Your task to perform on an android device: allow notifications from all sites in the chrome app Image 0: 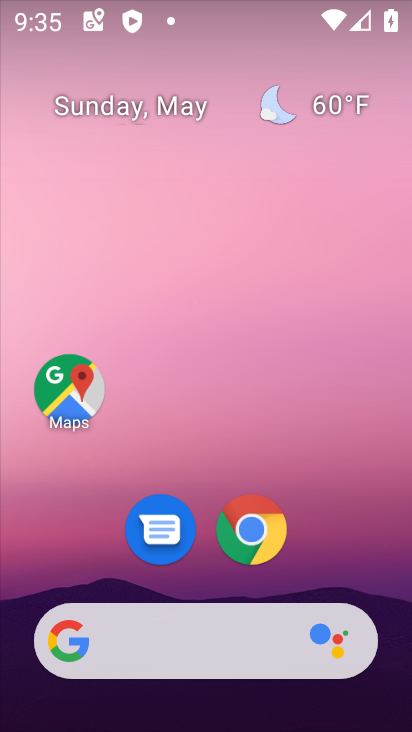
Step 0: drag from (383, 542) to (348, 280)
Your task to perform on an android device: allow notifications from all sites in the chrome app Image 1: 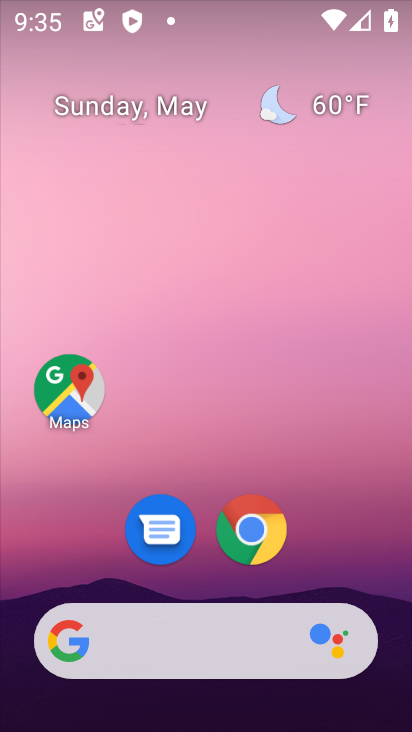
Step 1: drag from (328, 533) to (366, 100)
Your task to perform on an android device: allow notifications from all sites in the chrome app Image 2: 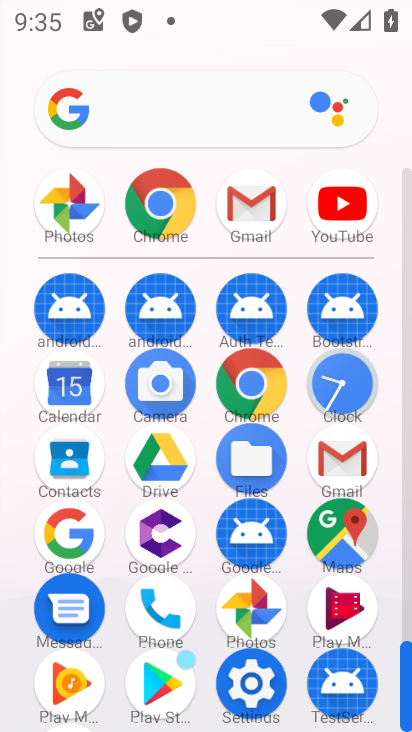
Step 2: click (270, 384)
Your task to perform on an android device: allow notifications from all sites in the chrome app Image 3: 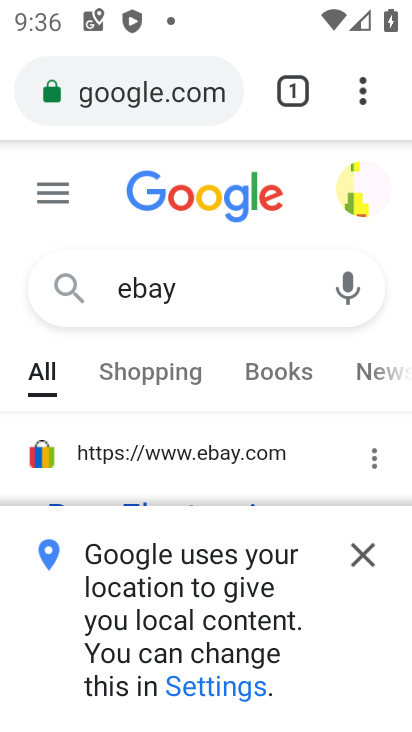
Step 3: click (361, 105)
Your task to perform on an android device: allow notifications from all sites in the chrome app Image 4: 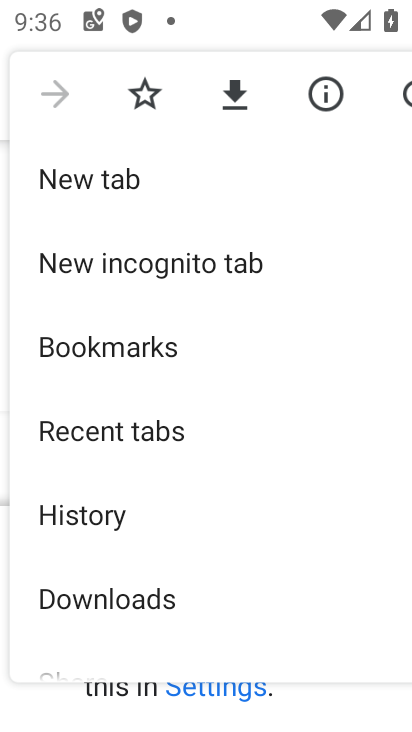
Step 4: drag from (360, 615) to (354, 436)
Your task to perform on an android device: allow notifications from all sites in the chrome app Image 5: 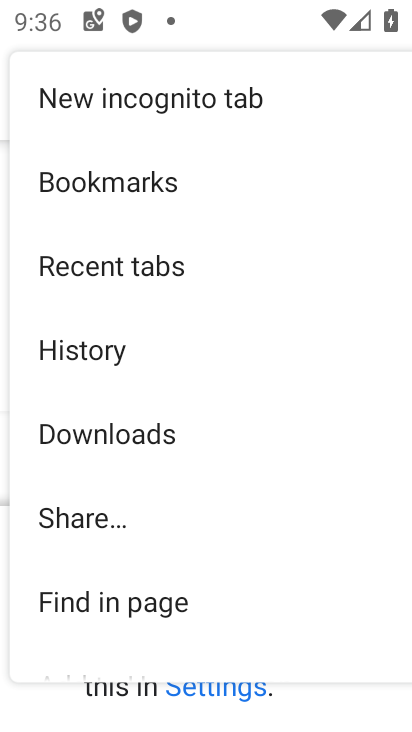
Step 5: drag from (325, 601) to (314, 428)
Your task to perform on an android device: allow notifications from all sites in the chrome app Image 6: 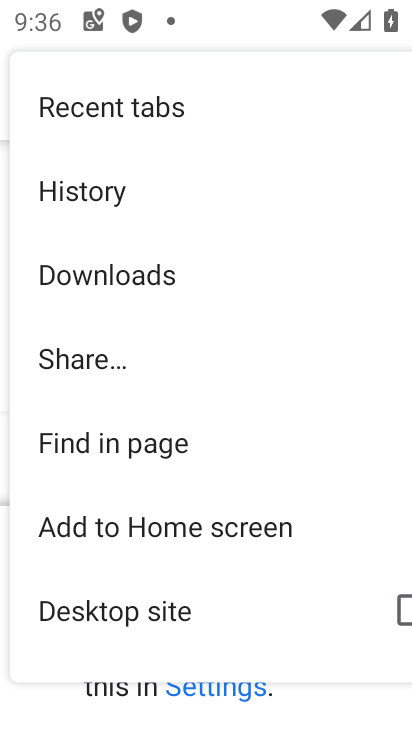
Step 6: drag from (323, 607) to (320, 431)
Your task to perform on an android device: allow notifications from all sites in the chrome app Image 7: 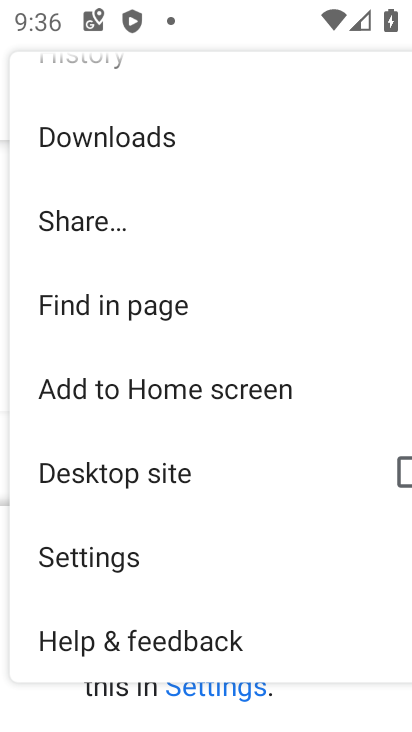
Step 7: click (106, 563)
Your task to perform on an android device: allow notifications from all sites in the chrome app Image 8: 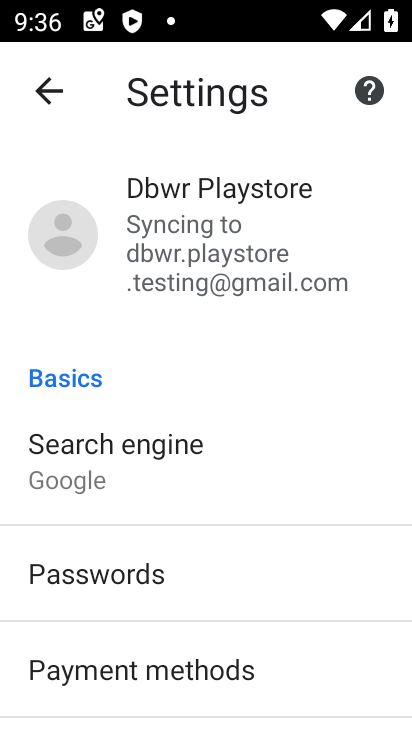
Step 8: drag from (375, 634) to (368, 386)
Your task to perform on an android device: allow notifications from all sites in the chrome app Image 9: 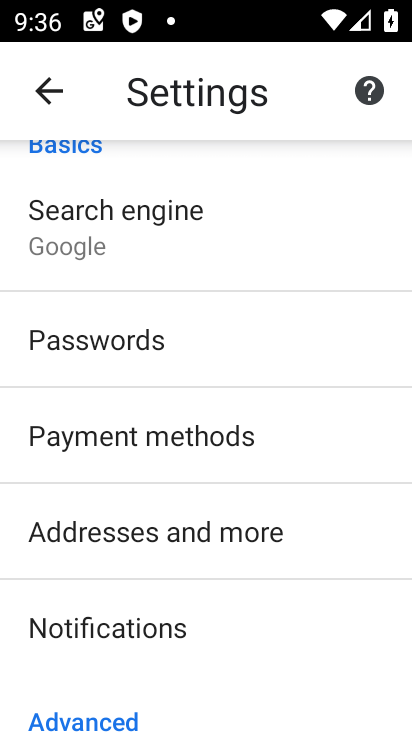
Step 9: drag from (353, 634) to (343, 441)
Your task to perform on an android device: allow notifications from all sites in the chrome app Image 10: 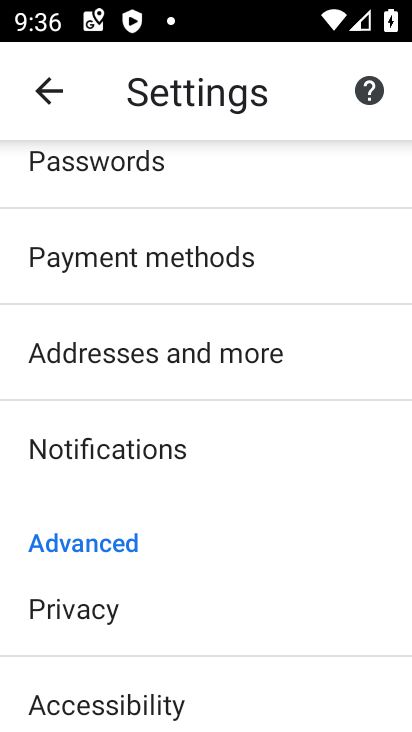
Step 10: drag from (347, 670) to (349, 478)
Your task to perform on an android device: allow notifications from all sites in the chrome app Image 11: 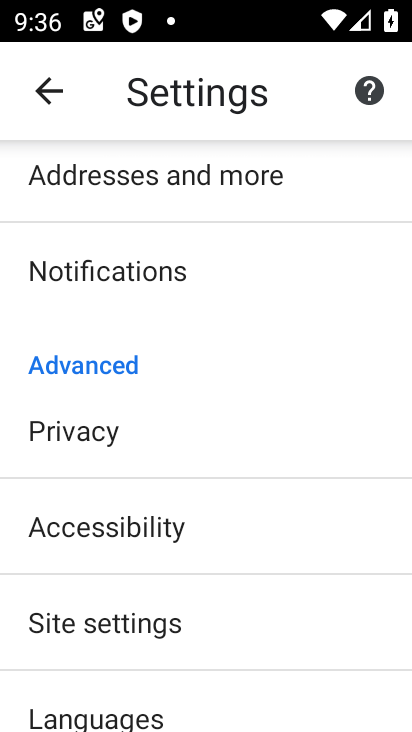
Step 11: click (308, 630)
Your task to perform on an android device: allow notifications from all sites in the chrome app Image 12: 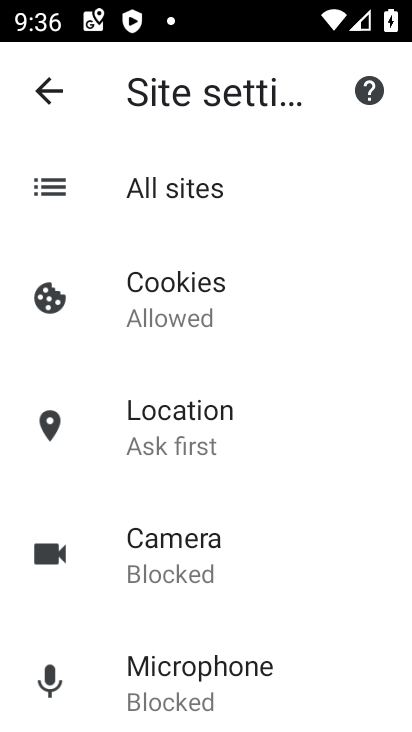
Step 12: drag from (324, 638) to (343, 444)
Your task to perform on an android device: allow notifications from all sites in the chrome app Image 13: 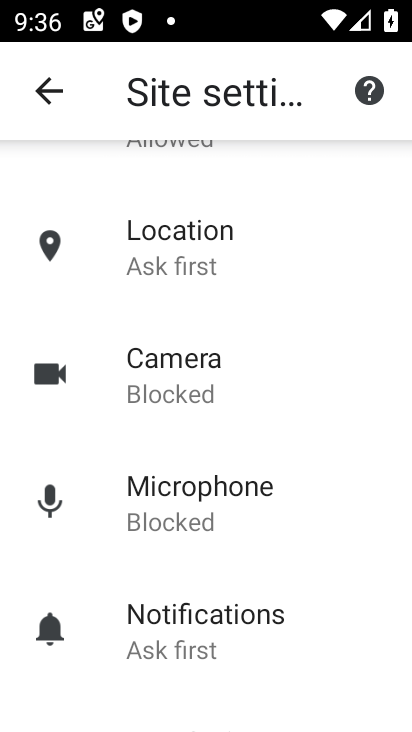
Step 13: drag from (353, 665) to (350, 509)
Your task to perform on an android device: allow notifications from all sites in the chrome app Image 14: 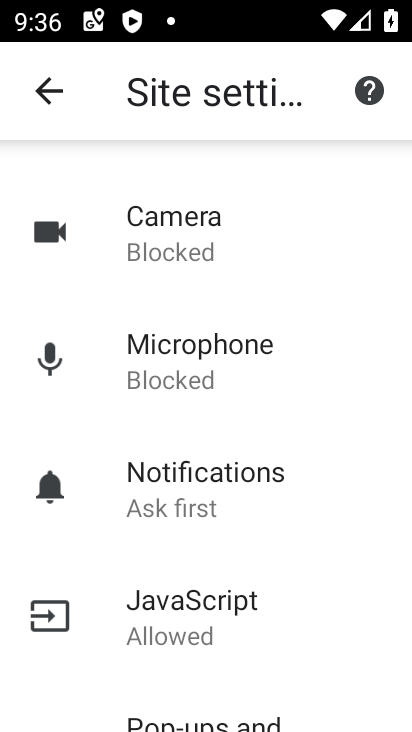
Step 14: click (315, 492)
Your task to perform on an android device: allow notifications from all sites in the chrome app Image 15: 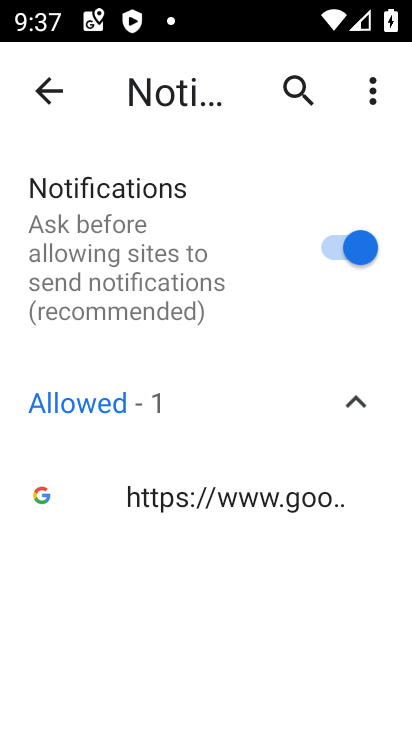
Step 15: task complete